Your task to perform on an android device: Open Chrome and go to settings Image 0: 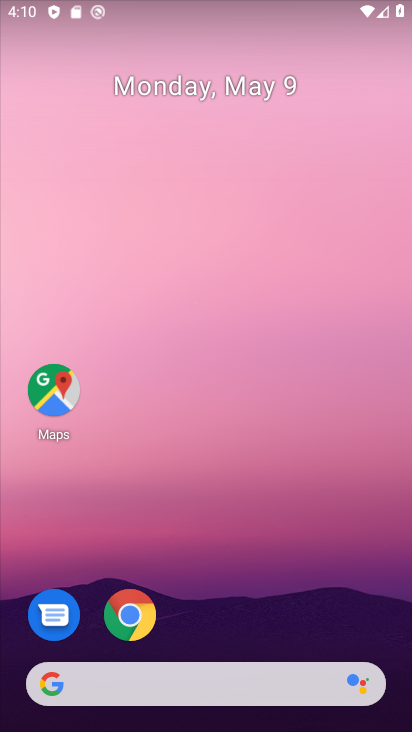
Step 0: click (131, 630)
Your task to perform on an android device: Open Chrome and go to settings Image 1: 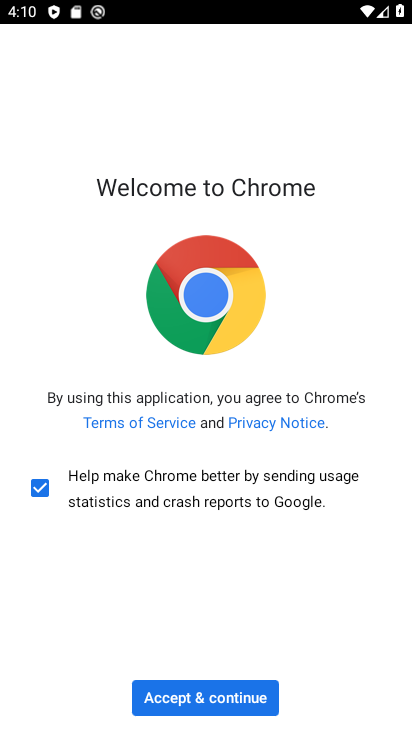
Step 1: click (214, 688)
Your task to perform on an android device: Open Chrome and go to settings Image 2: 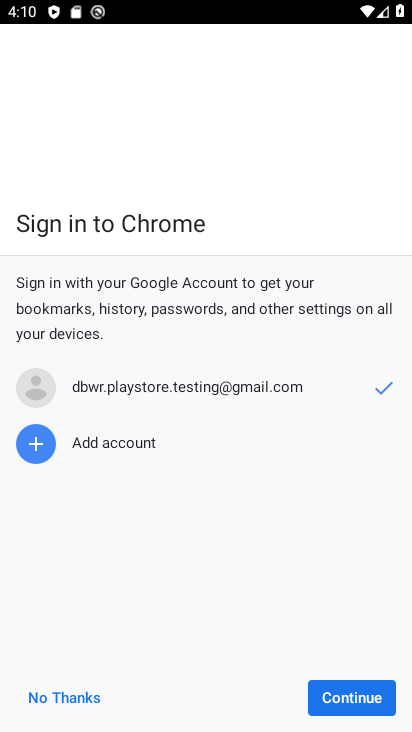
Step 2: click (334, 701)
Your task to perform on an android device: Open Chrome and go to settings Image 3: 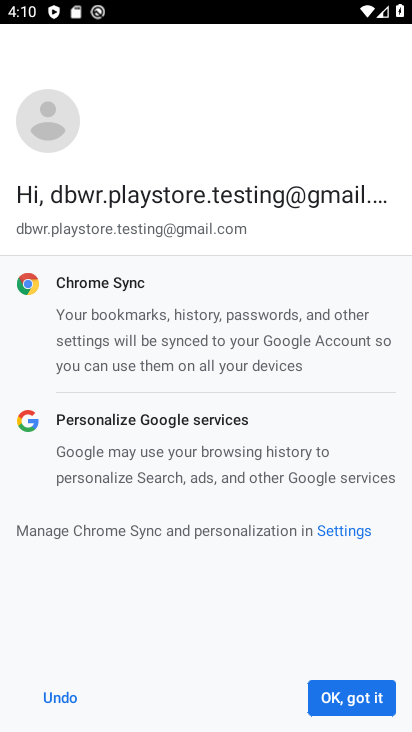
Step 3: click (334, 701)
Your task to perform on an android device: Open Chrome and go to settings Image 4: 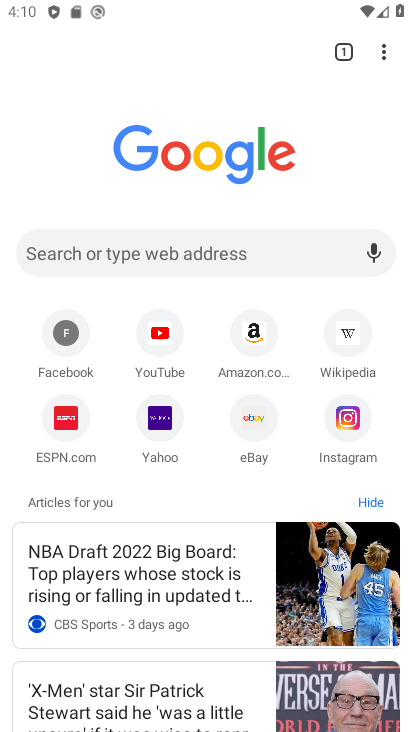
Step 4: click (394, 62)
Your task to perform on an android device: Open Chrome and go to settings Image 5: 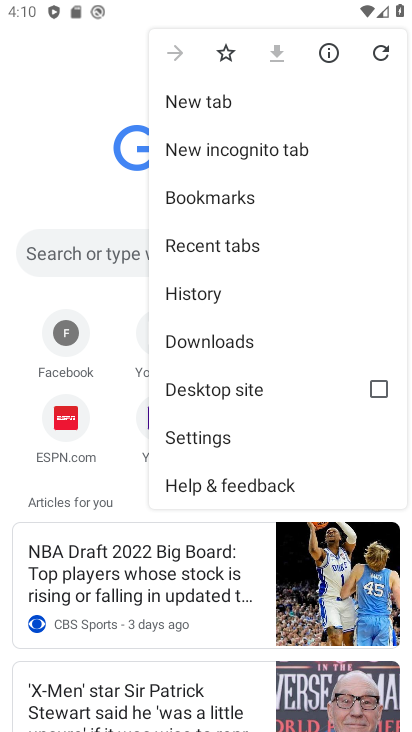
Step 5: click (254, 450)
Your task to perform on an android device: Open Chrome and go to settings Image 6: 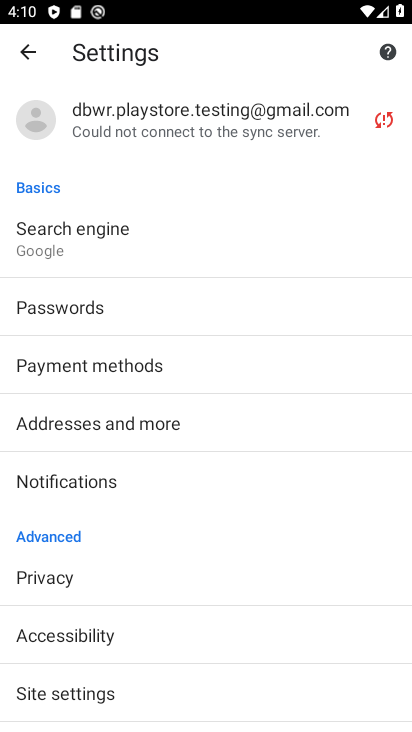
Step 6: task complete